Your task to perform on an android device: toggle javascript in the chrome app Image 0: 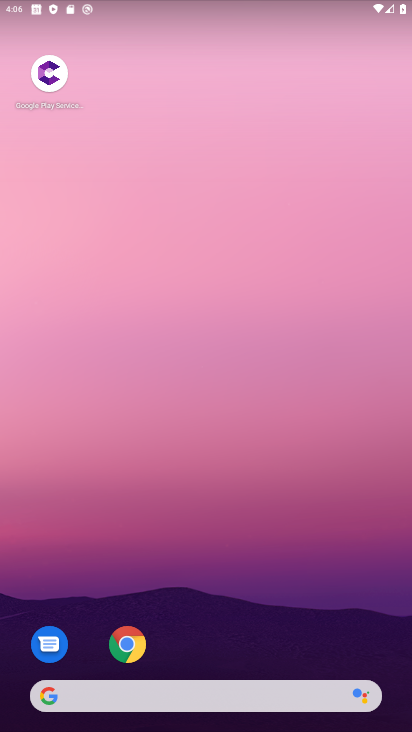
Step 0: click (116, 638)
Your task to perform on an android device: toggle javascript in the chrome app Image 1: 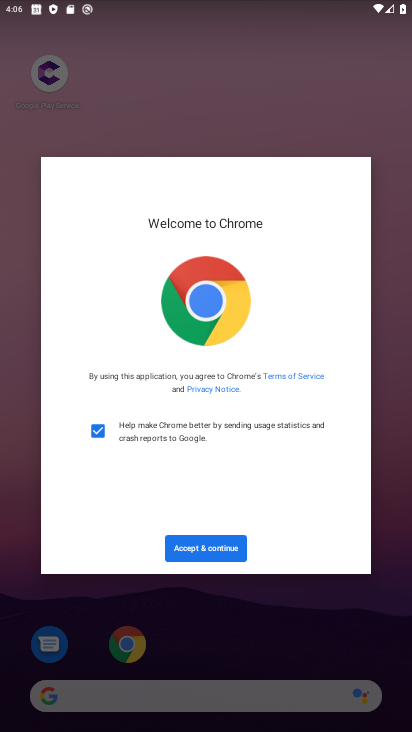
Step 1: click (174, 554)
Your task to perform on an android device: toggle javascript in the chrome app Image 2: 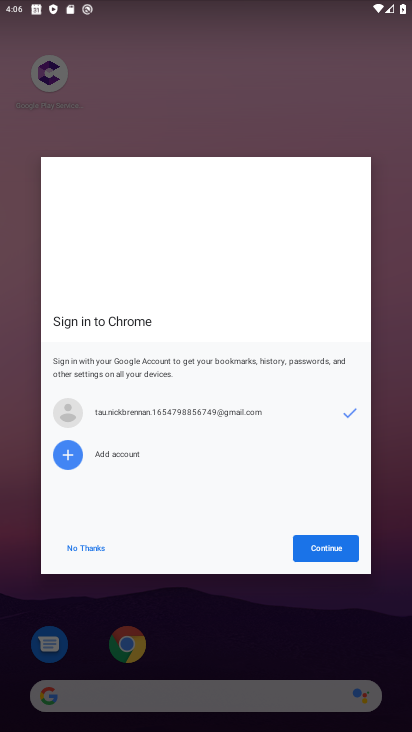
Step 2: click (327, 535)
Your task to perform on an android device: toggle javascript in the chrome app Image 3: 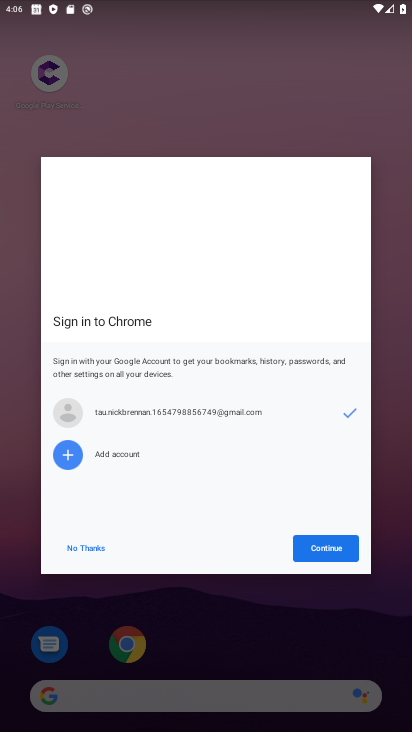
Step 3: click (325, 552)
Your task to perform on an android device: toggle javascript in the chrome app Image 4: 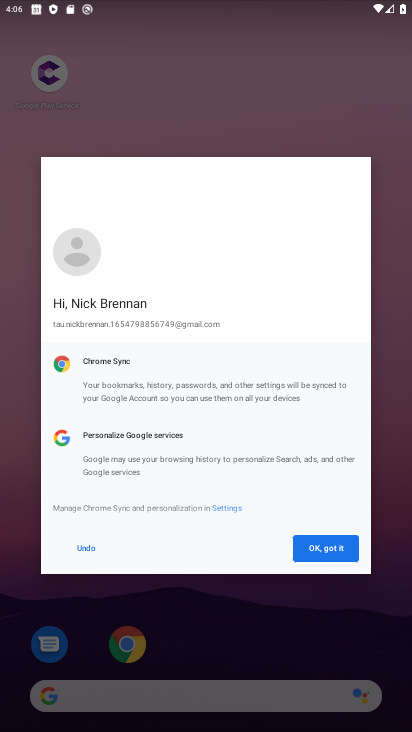
Step 4: click (325, 546)
Your task to perform on an android device: toggle javascript in the chrome app Image 5: 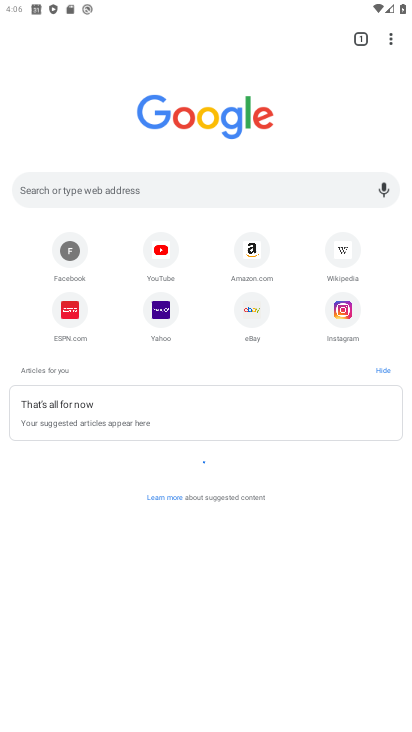
Step 5: click (388, 39)
Your task to perform on an android device: toggle javascript in the chrome app Image 6: 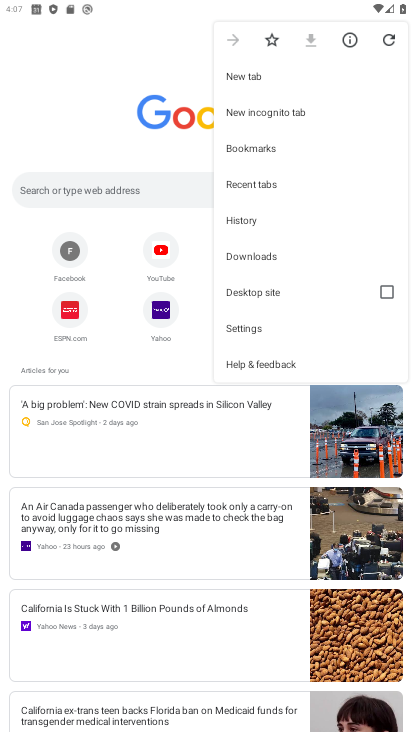
Step 6: click (243, 324)
Your task to perform on an android device: toggle javascript in the chrome app Image 7: 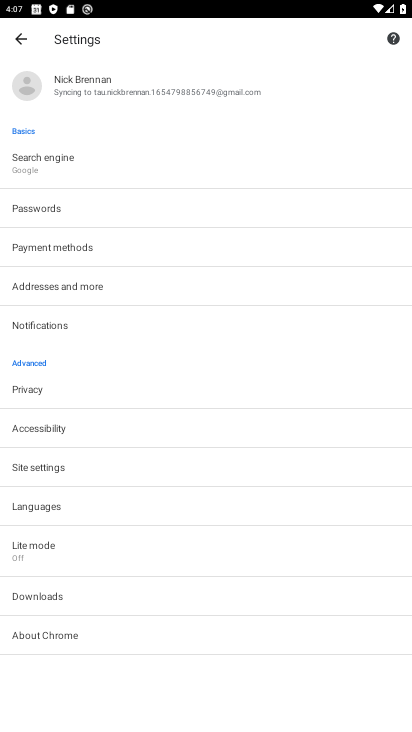
Step 7: click (38, 464)
Your task to perform on an android device: toggle javascript in the chrome app Image 8: 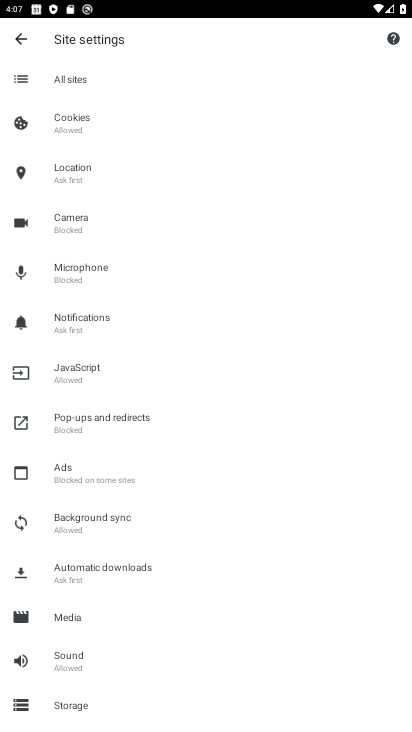
Step 8: click (79, 369)
Your task to perform on an android device: toggle javascript in the chrome app Image 9: 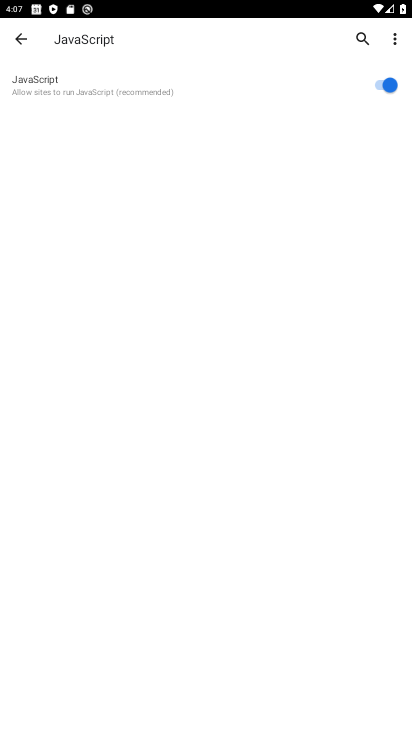
Step 9: task complete